Your task to perform on an android device: turn off sleep mode Image 0: 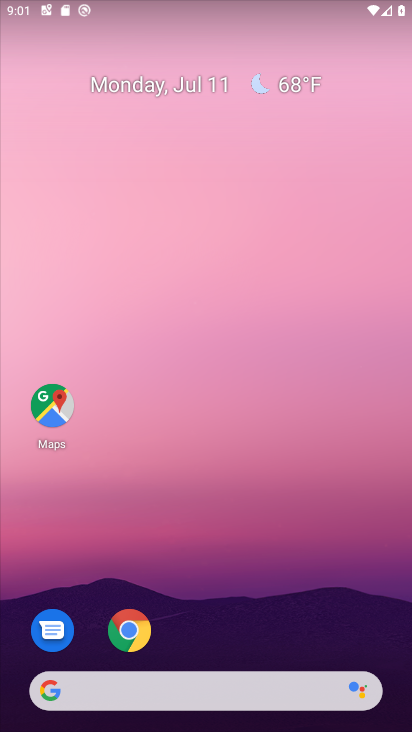
Step 0: drag from (210, 566) to (185, 26)
Your task to perform on an android device: turn off sleep mode Image 1: 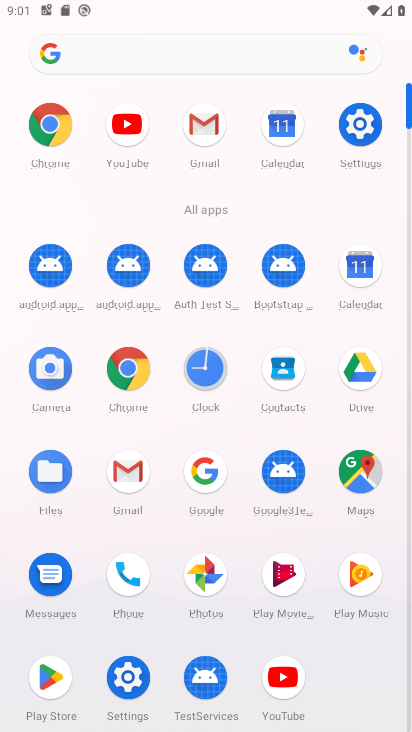
Step 1: click (365, 140)
Your task to perform on an android device: turn off sleep mode Image 2: 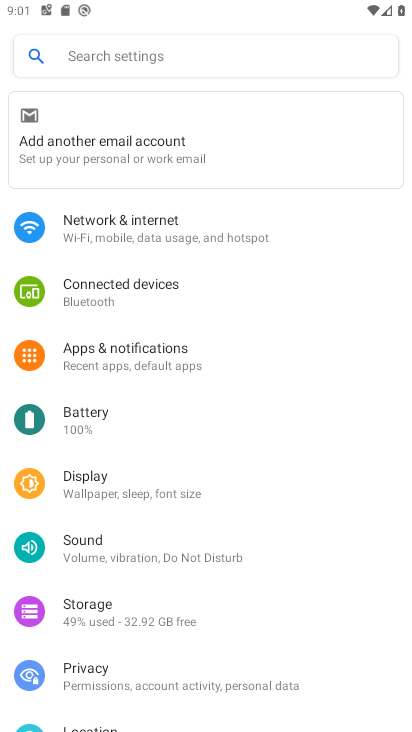
Step 2: click (131, 50)
Your task to perform on an android device: turn off sleep mode Image 3: 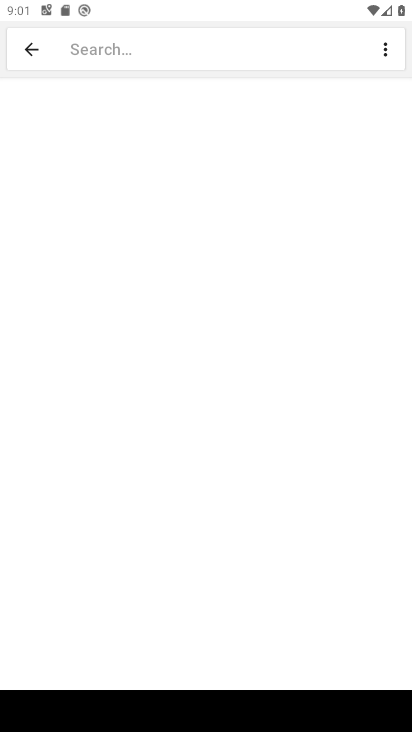
Step 3: type "sleep mode"
Your task to perform on an android device: turn off sleep mode Image 4: 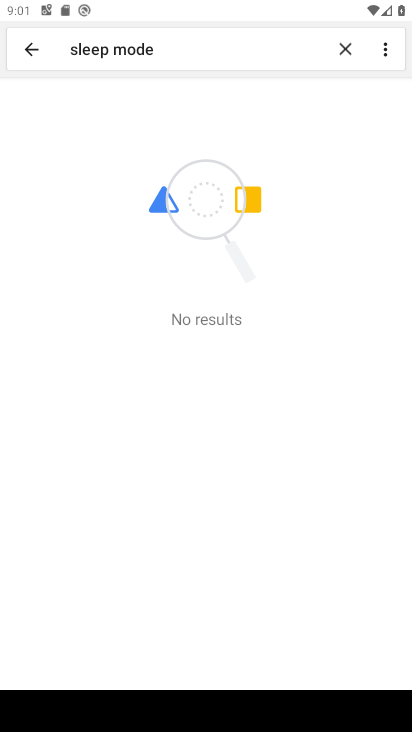
Step 4: task complete